Your task to perform on an android device: What is the news today? Image 0: 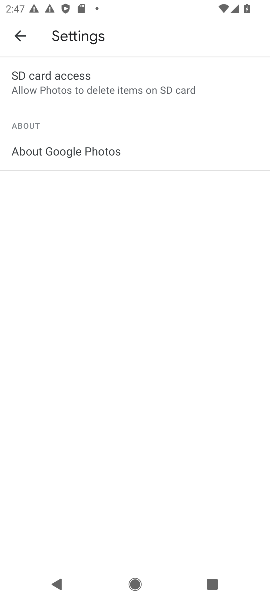
Step 0: press home button
Your task to perform on an android device: What is the news today? Image 1: 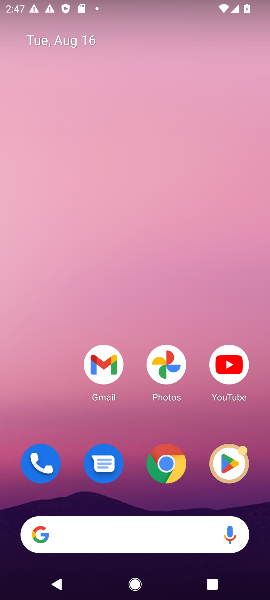
Step 1: drag from (144, 524) to (98, 40)
Your task to perform on an android device: What is the news today? Image 2: 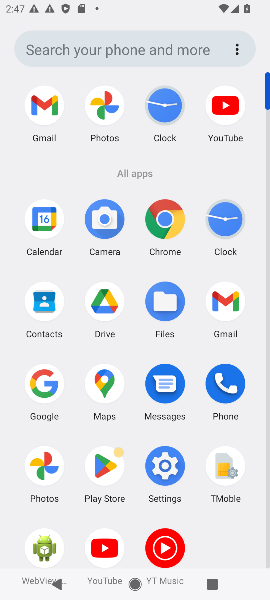
Step 2: click (39, 386)
Your task to perform on an android device: What is the news today? Image 3: 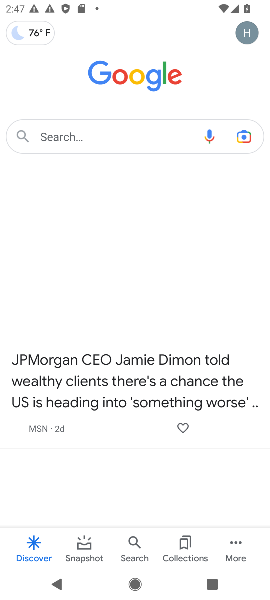
Step 3: task complete